Your task to perform on an android device: add a contact Image 0: 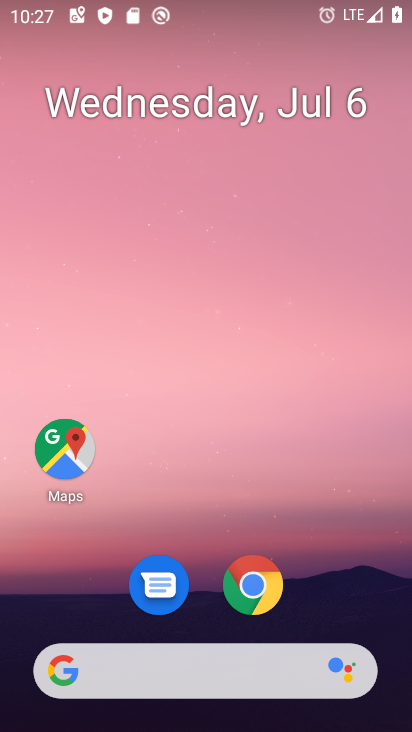
Step 0: drag from (218, 509) to (257, 1)
Your task to perform on an android device: add a contact Image 1: 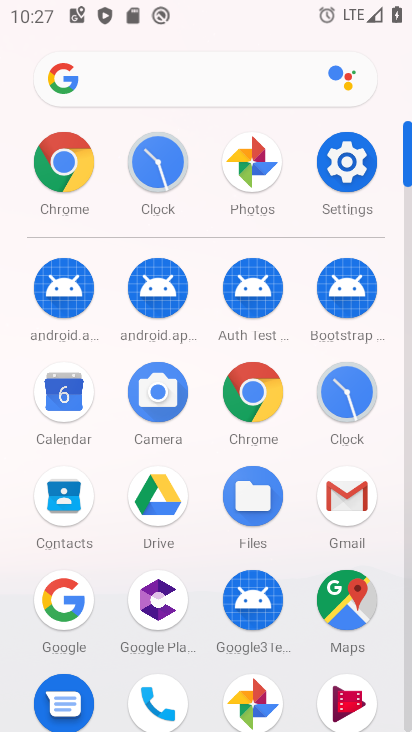
Step 1: click (73, 506)
Your task to perform on an android device: add a contact Image 2: 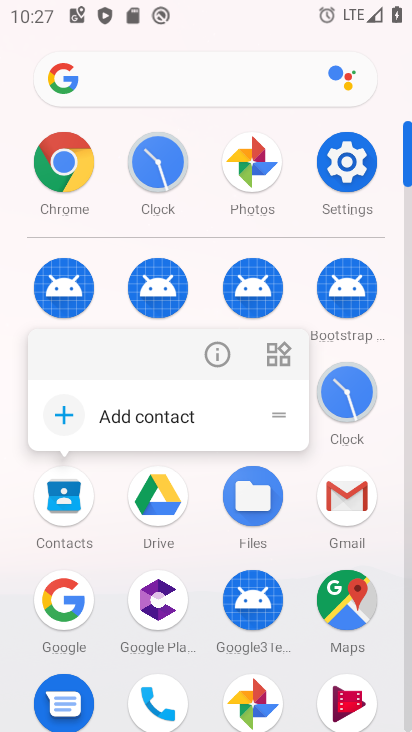
Step 2: click (62, 484)
Your task to perform on an android device: add a contact Image 3: 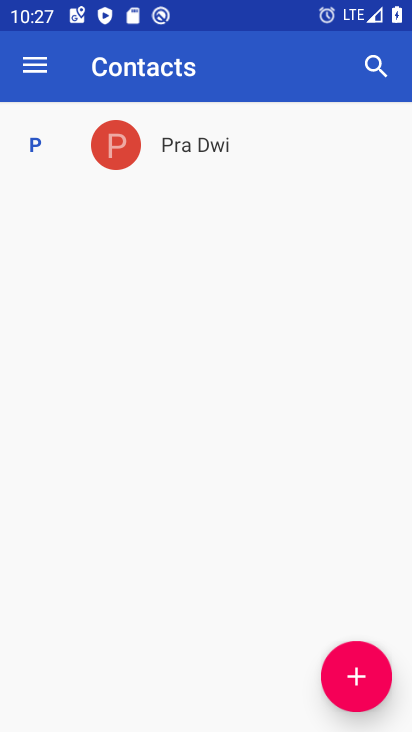
Step 3: click (368, 681)
Your task to perform on an android device: add a contact Image 4: 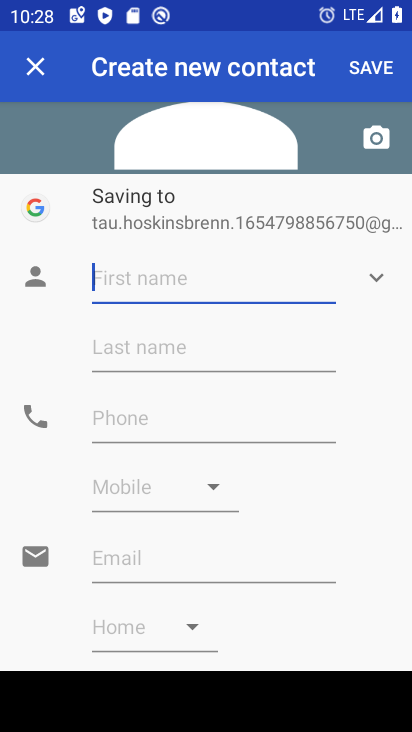
Step 4: type "Shri Ram"
Your task to perform on an android device: add a contact Image 5: 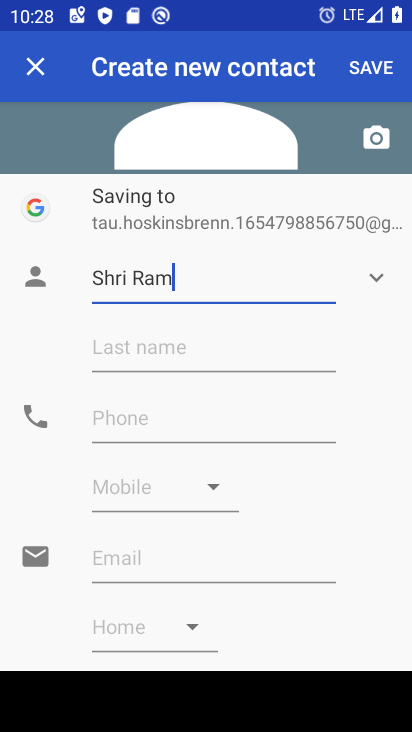
Step 5: click (206, 422)
Your task to perform on an android device: add a contact Image 6: 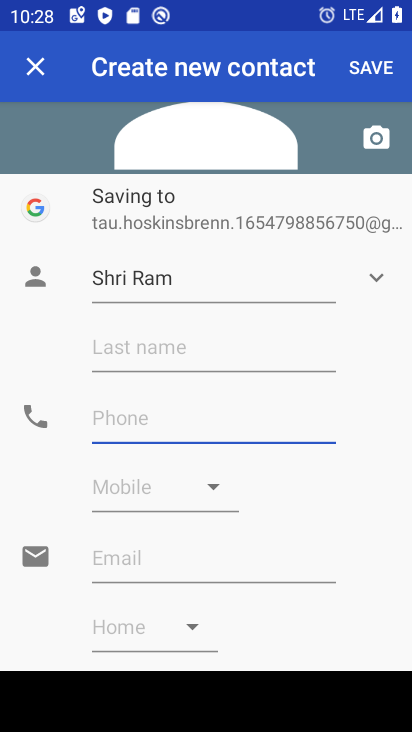
Step 6: type "9999999999"
Your task to perform on an android device: add a contact Image 7: 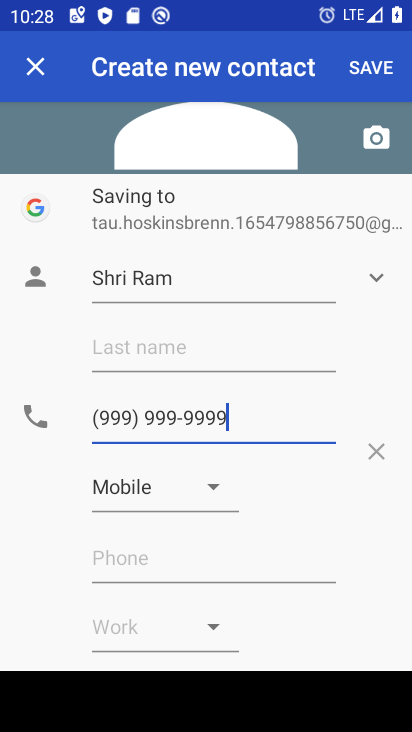
Step 7: click (371, 64)
Your task to perform on an android device: add a contact Image 8: 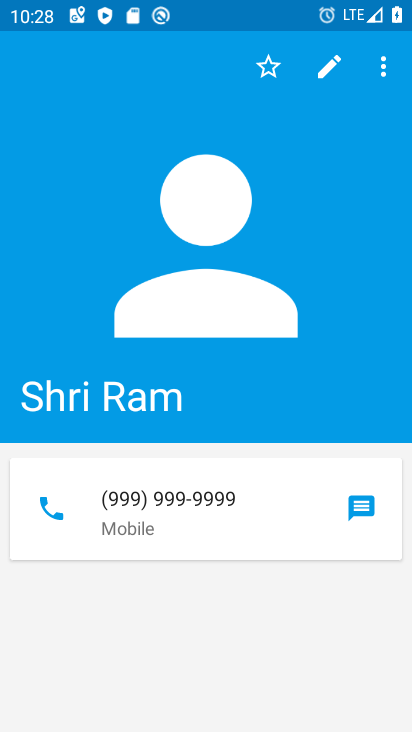
Step 8: task complete